Your task to perform on an android device: delete a single message in the gmail app Image 0: 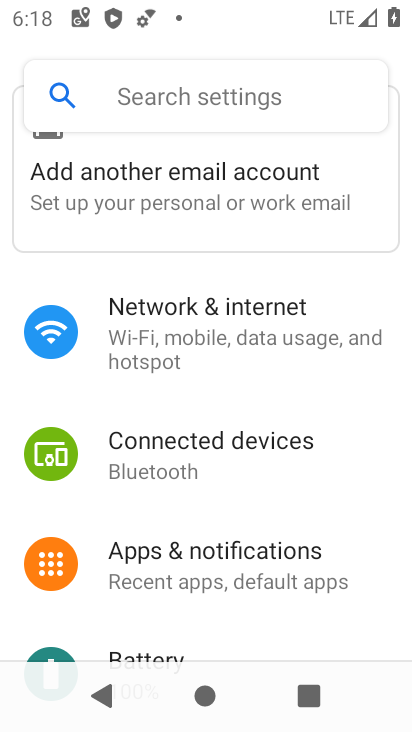
Step 0: press home button
Your task to perform on an android device: delete a single message in the gmail app Image 1: 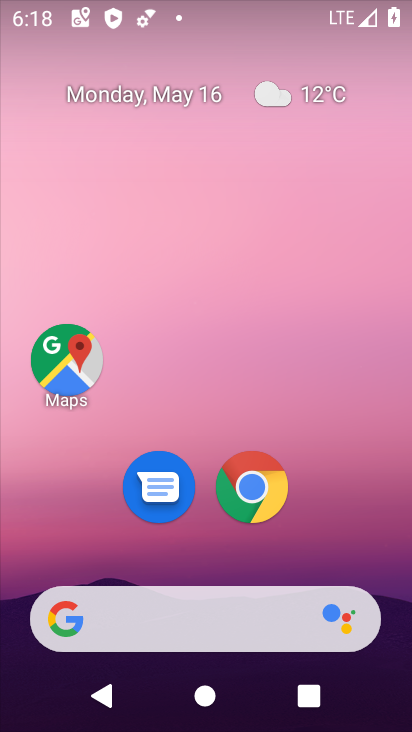
Step 1: drag from (304, 517) to (218, 89)
Your task to perform on an android device: delete a single message in the gmail app Image 2: 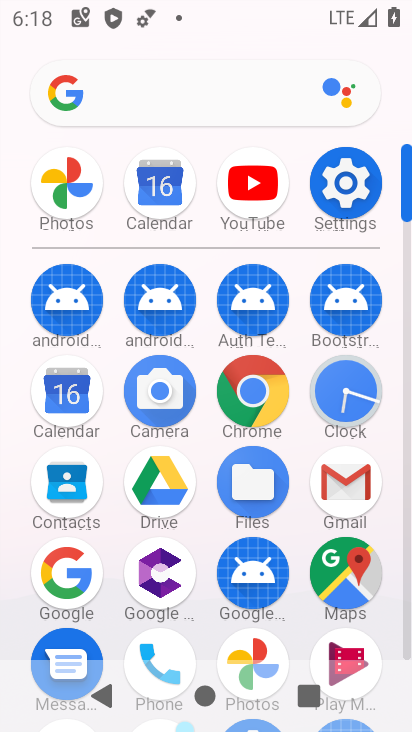
Step 2: click (346, 495)
Your task to perform on an android device: delete a single message in the gmail app Image 3: 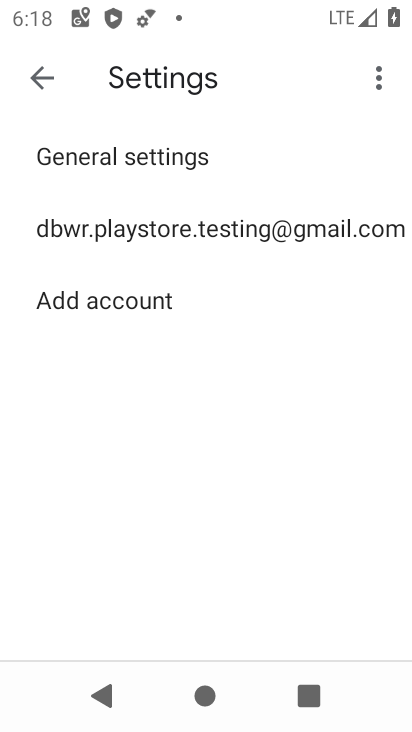
Step 3: click (36, 65)
Your task to perform on an android device: delete a single message in the gmail app Image 4: 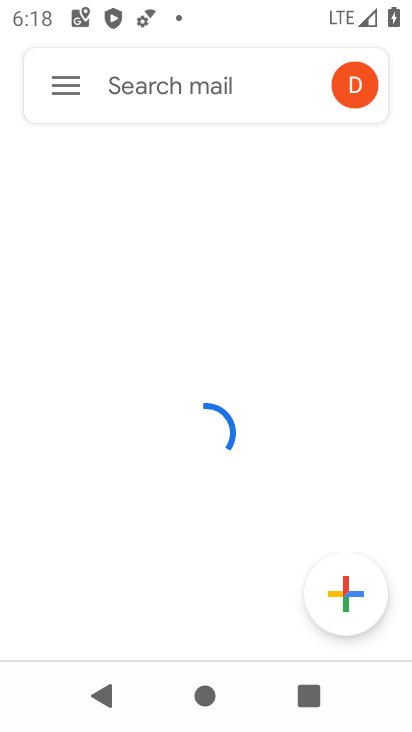
Step 4: click (48, 83)
Your task to perform on an android device: delete a single message in the gmail app Image 5: 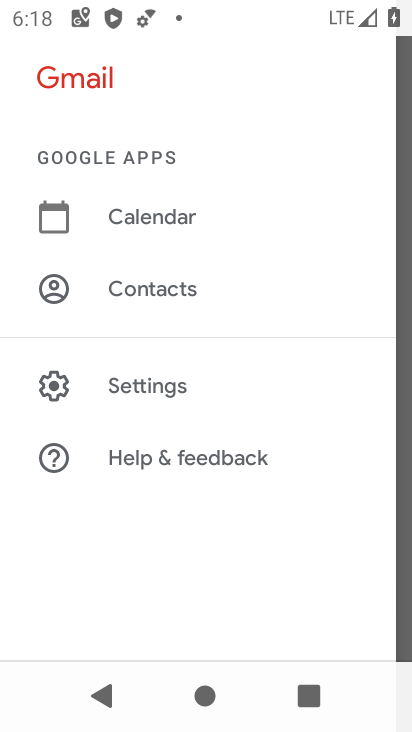
Step 5: click (409, 288)
Your task to perform on an android device: delete a single message in the gmail app Image 6: 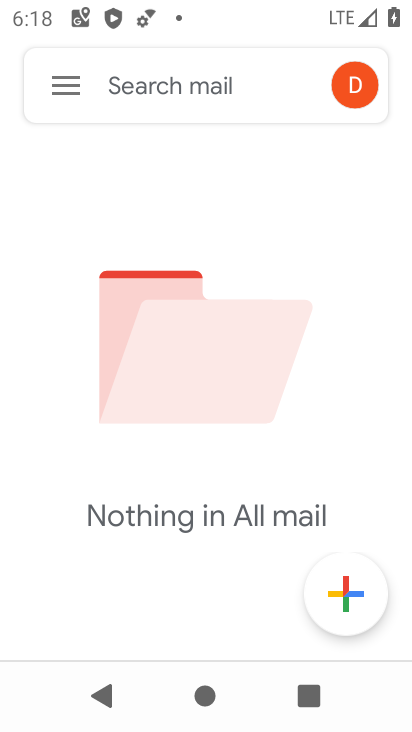
Step 6: click (52, 81)
Your task to perform on an android device: delete a single message in the gmail app Image 7: 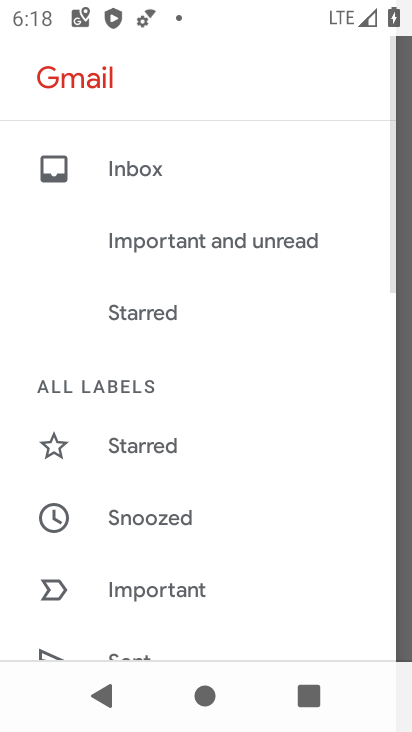
Step 7: drag from (145, 533) to (200, 109)
Your task to perform on an android device: delete a single message in the gmail app Image 8: 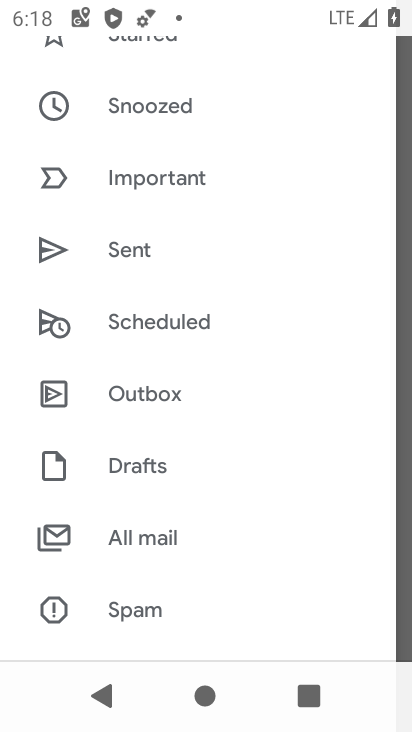
Step 8: click (123, 526)
Your task to perform on an android device: delete a single message in the gmail app Image 9: 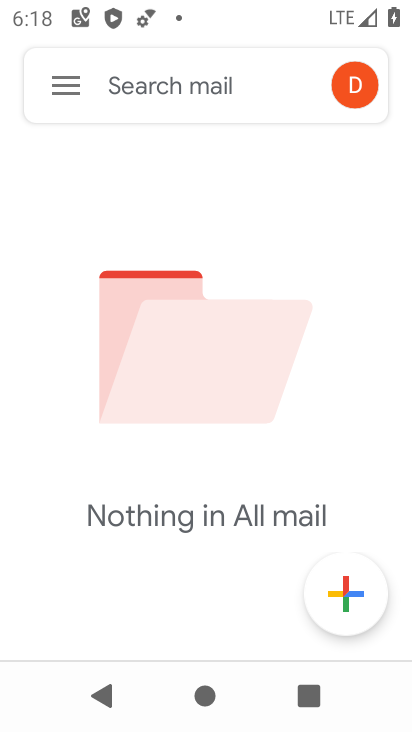
Step 9: task complete